Your task to perform on an android device: uninstall "Google Play services" Image 0: 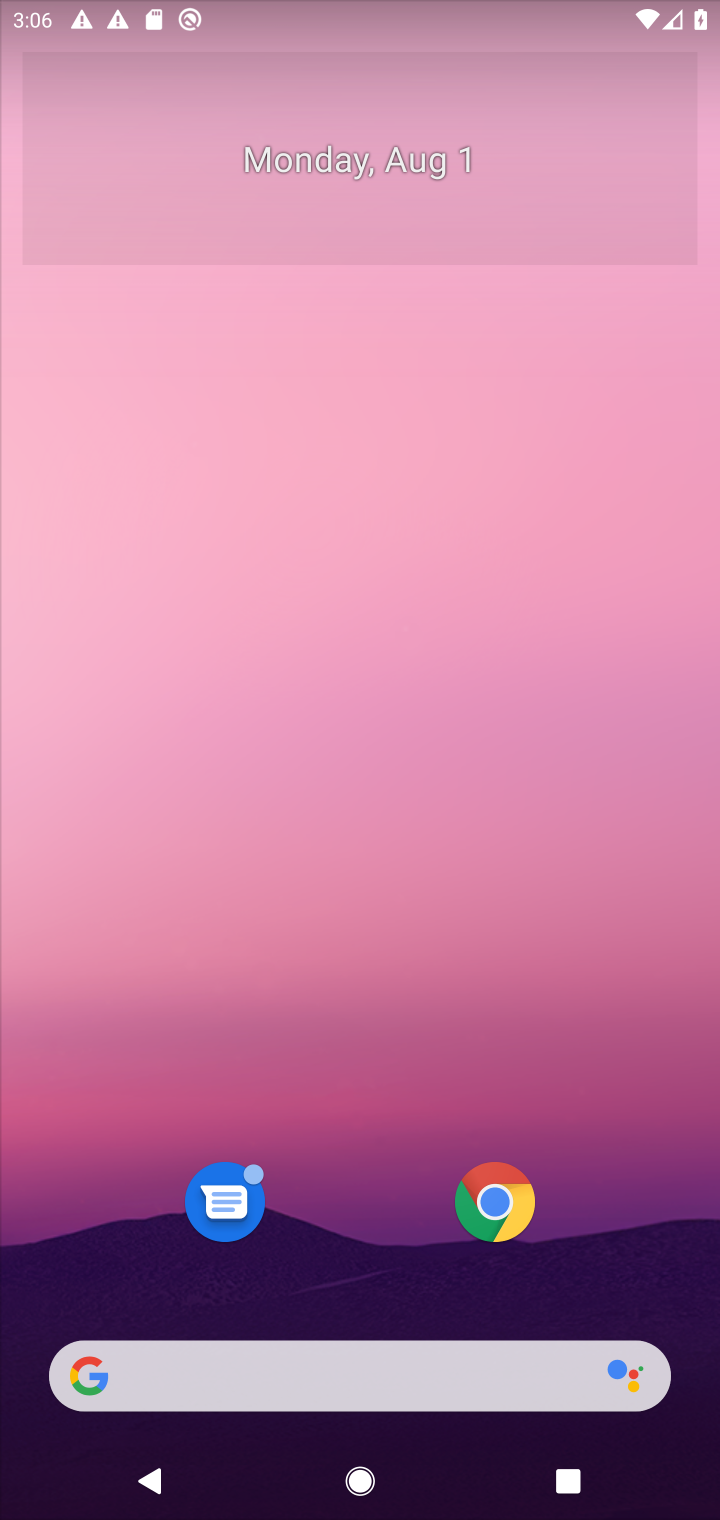
Step 0: drag from (378, 854) to (464, 101)
Your task to perform on an android device: uninstall "Google Play services" Image 1: 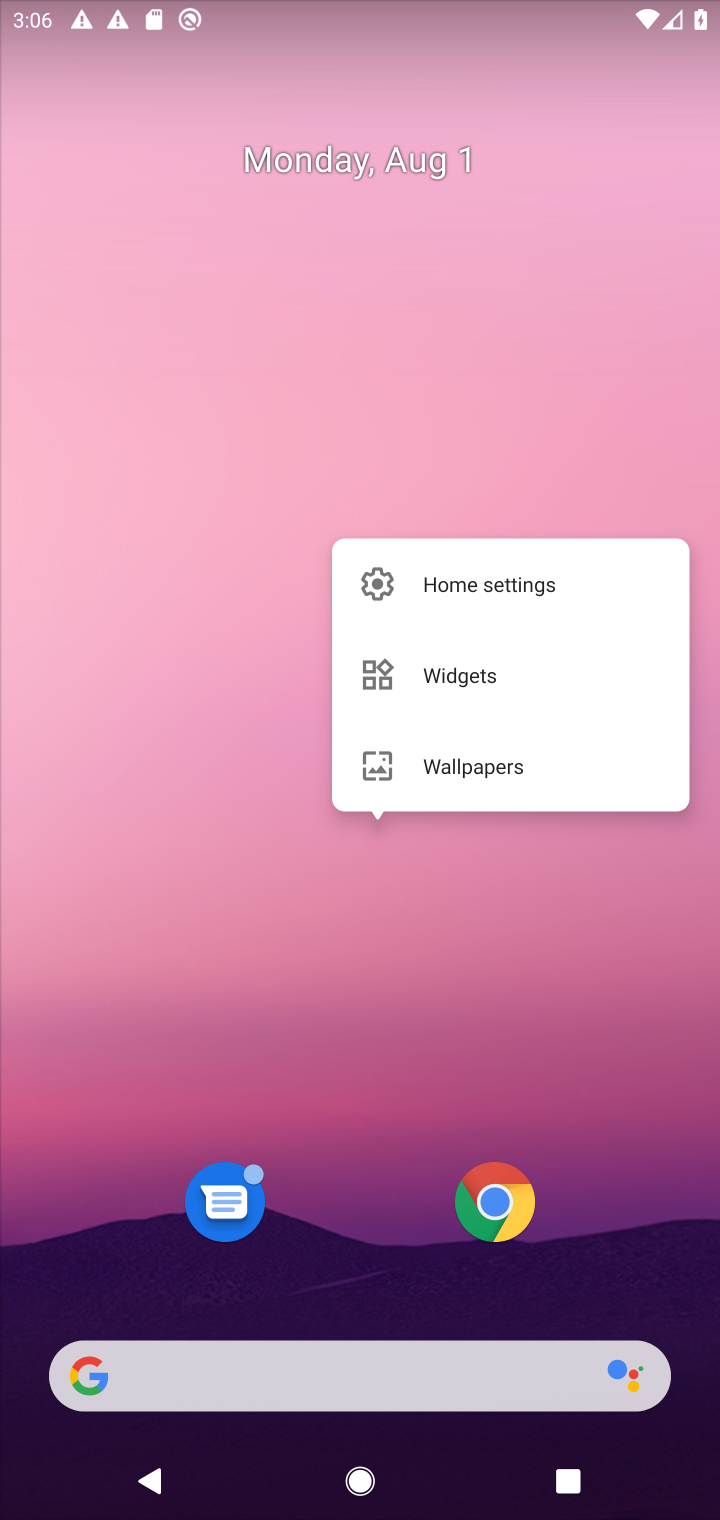
Step 1: click (441, 1055)
Your task to perform on an android device: uninstall "Google Play services" Image 2: 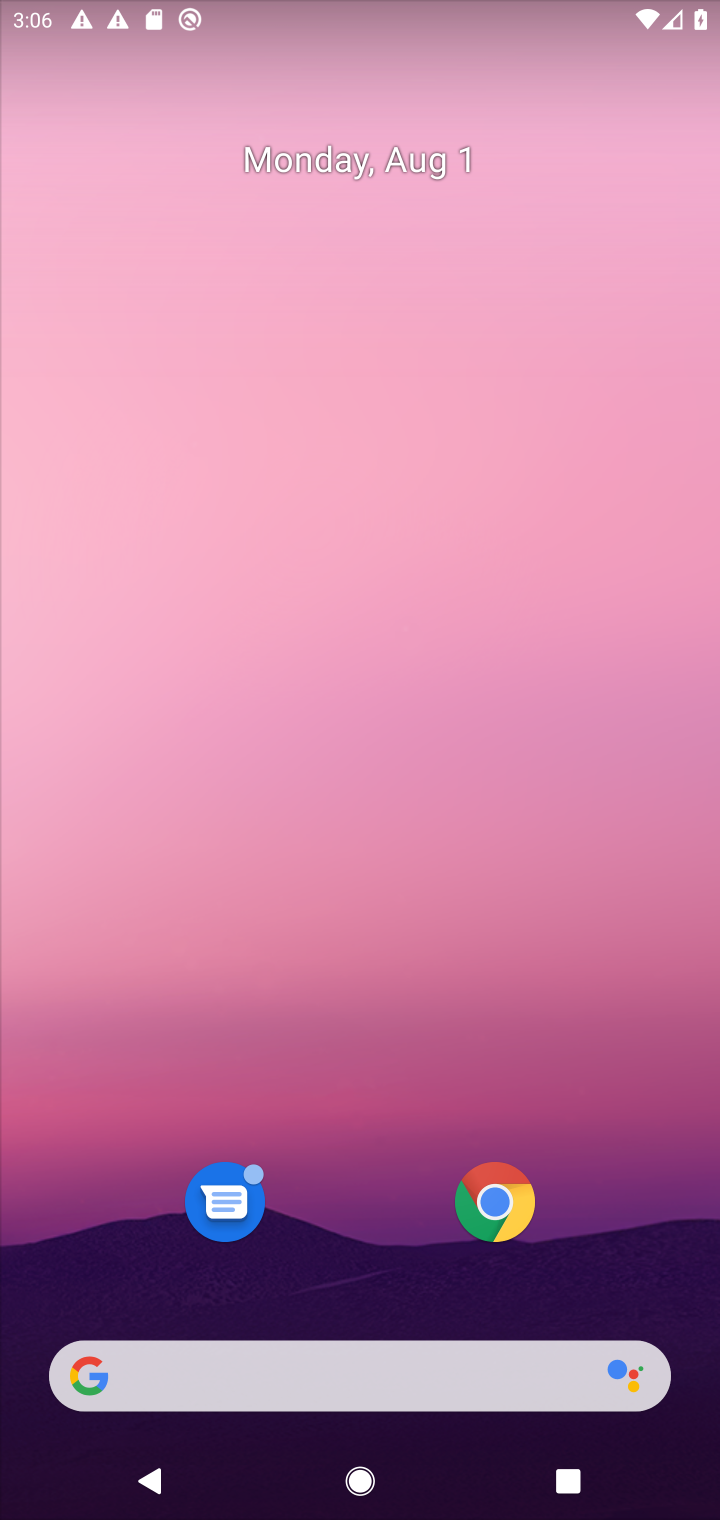
Step 2: drag from (360, 1052) to (396, 31)
Your task to perform on an android device: uninstall "Google Play services" Image 3: 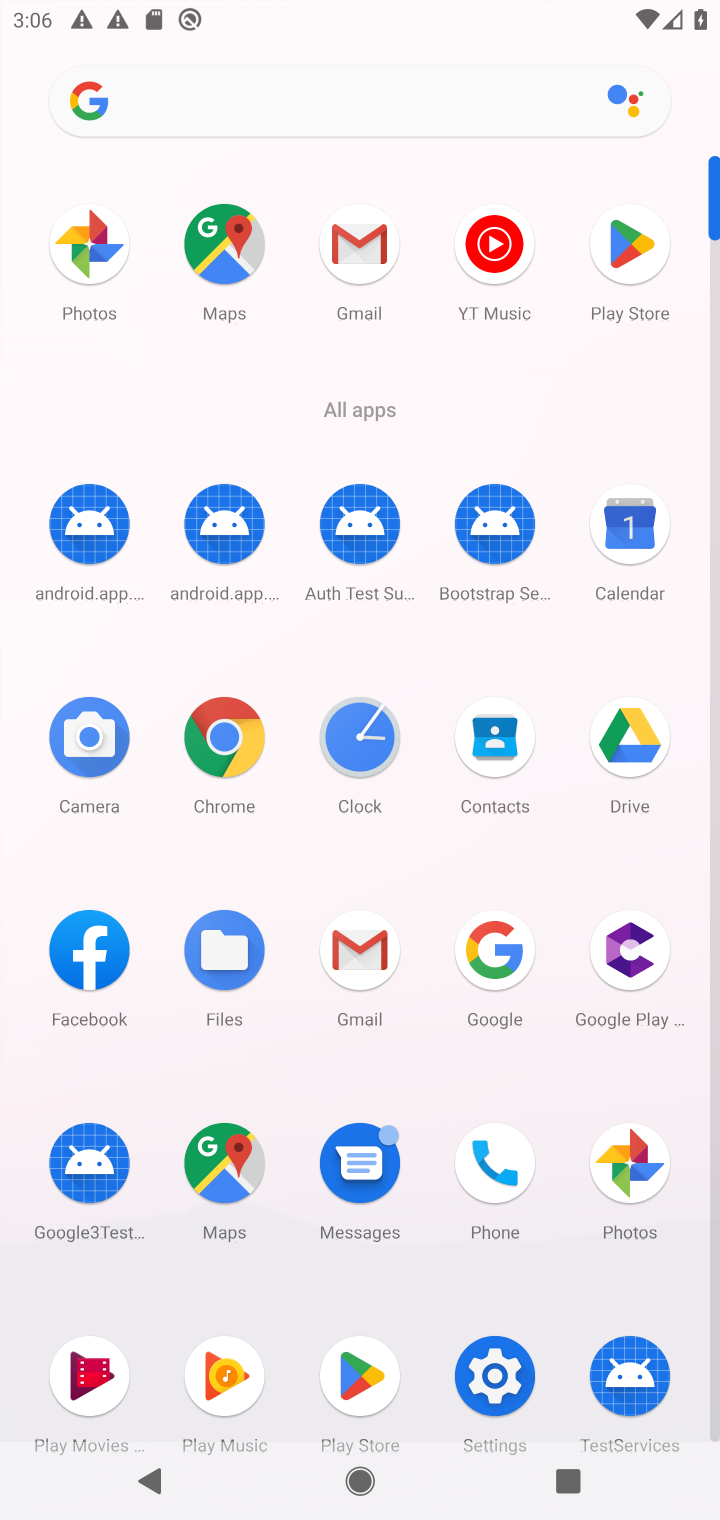
Step 3: click (621, 226)
Your task to perform on an android device: uninstall "Google Play services" Image 4: 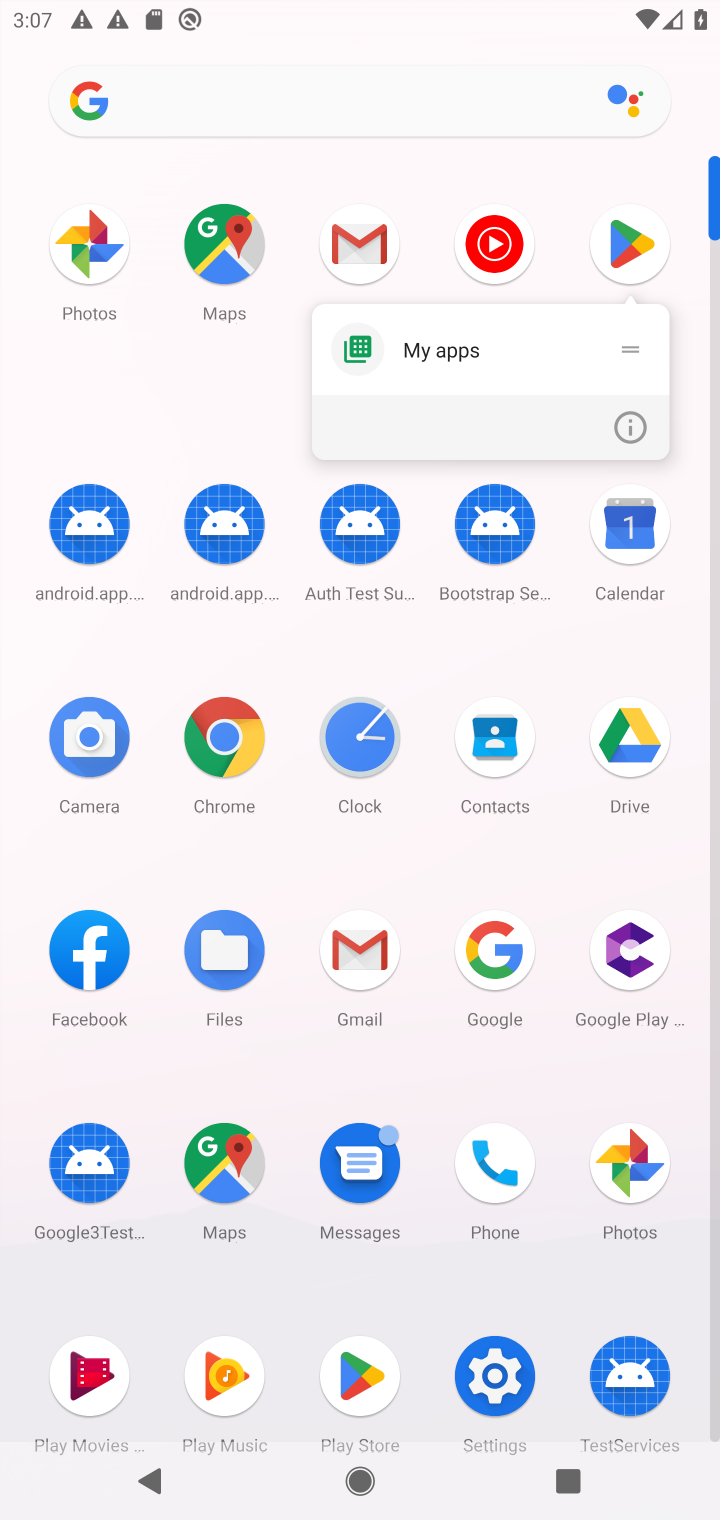
Step 4: click (640, 254)
Your task to perform on an android device: uninstall "Google Play services" Image 5: 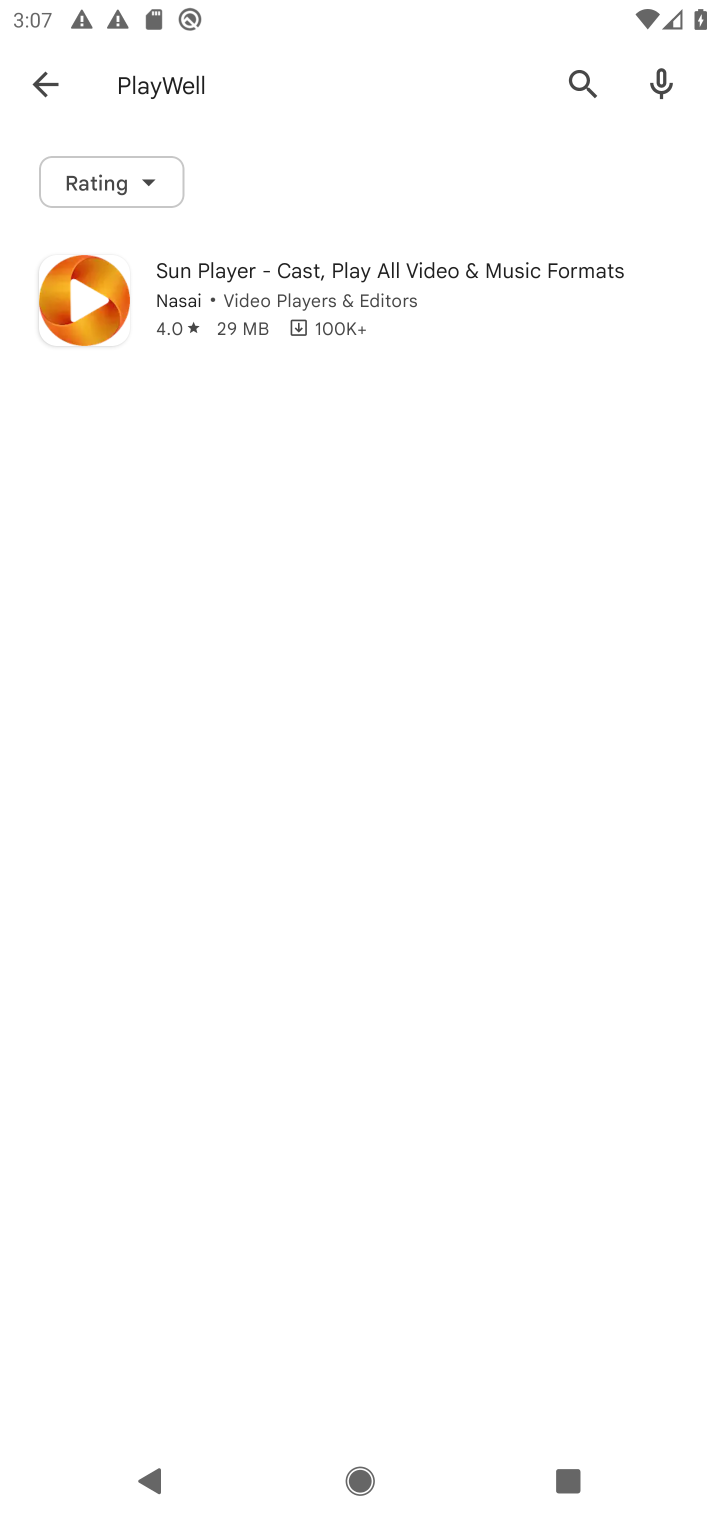
Step 5: click (52, 93)
Your task to perform on an android device: uninstall "Google Play services" Image 6: 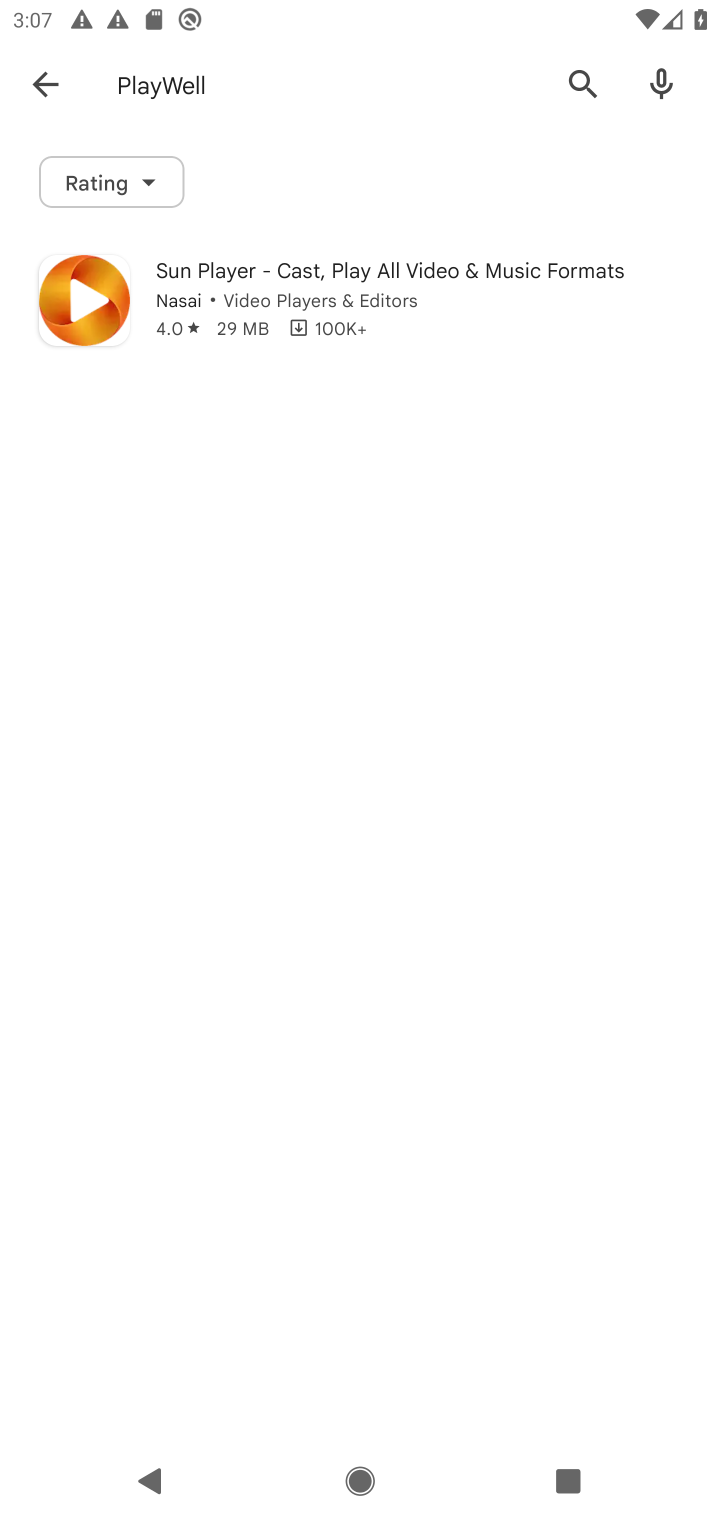
Step 6: press back button
Your task to perform on an android device: uninstall "Google Play services" Image 7: 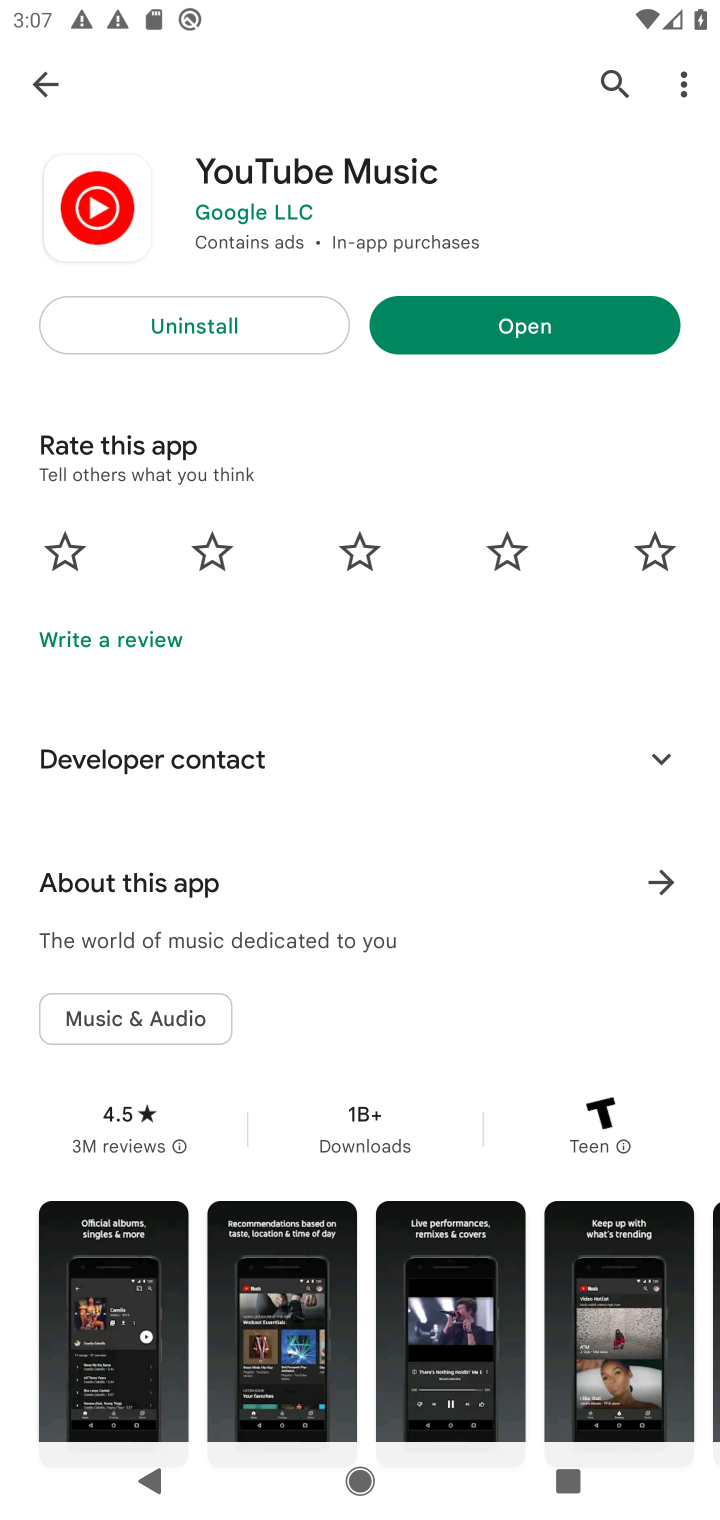
Step 7: click (34, 76)
Your task to perform on an android device: uninstall "Google Play services" Image 8: 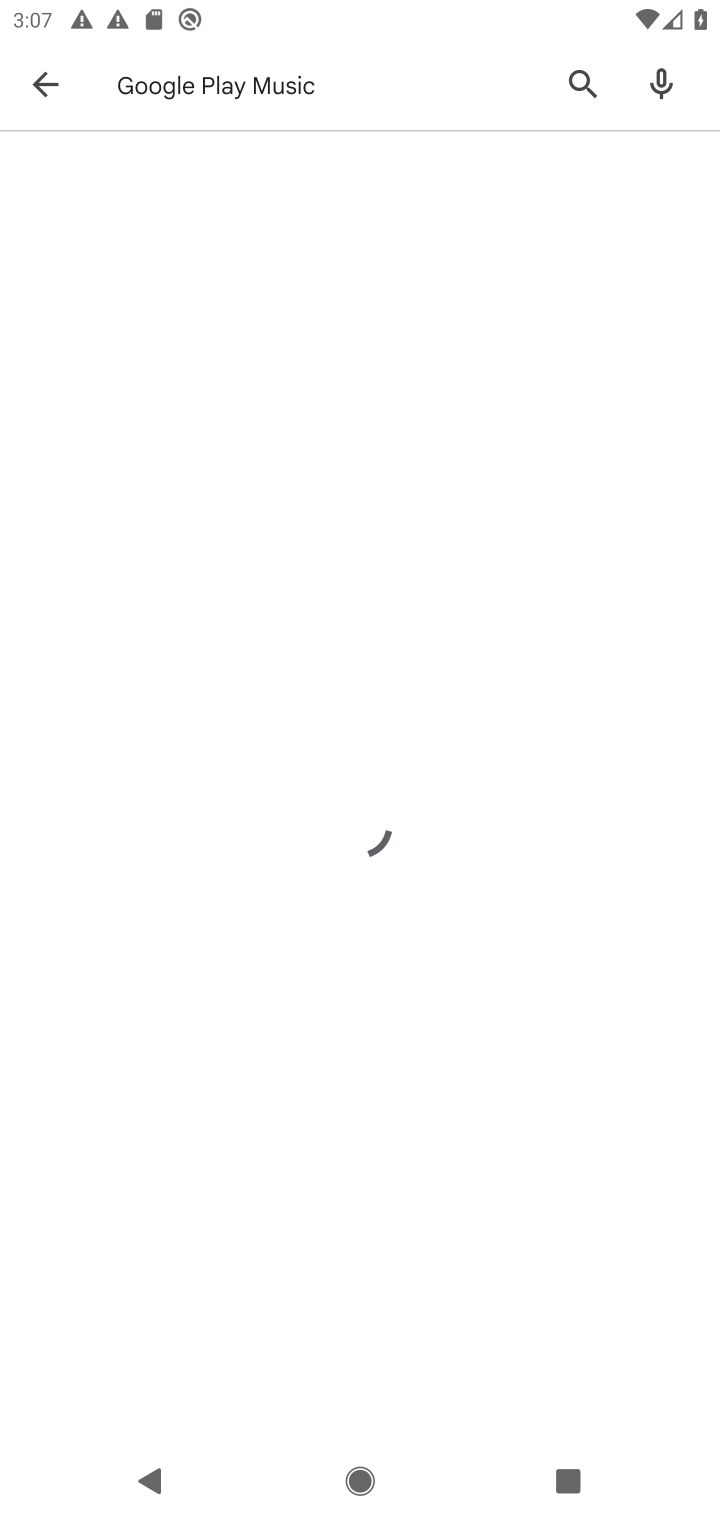
Step 8: click (499, 77)
Your task to perform on an android device: uninstall "Google Play services" Image 9: 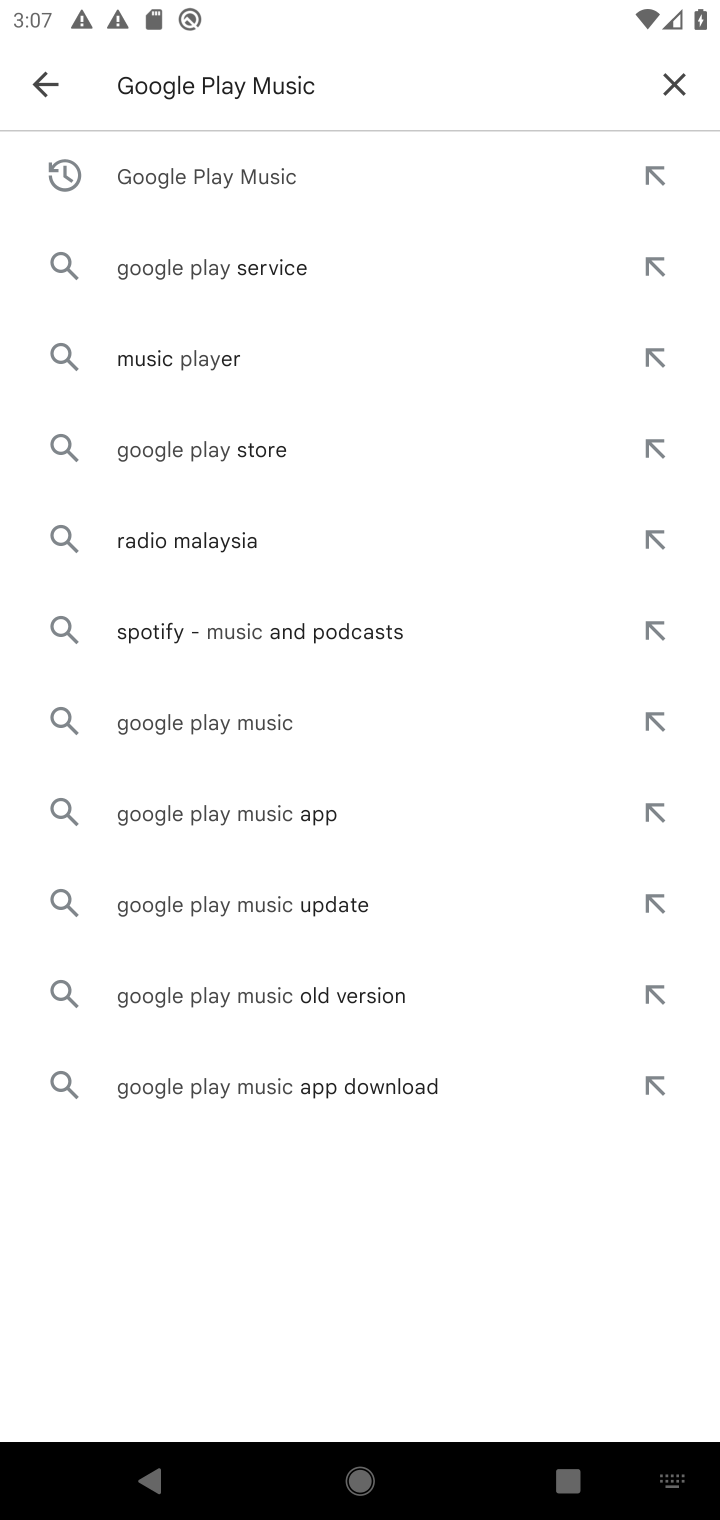
Step 9: press enter
Your task to perform on an android device: uninstall "Google Play services" Image 10: 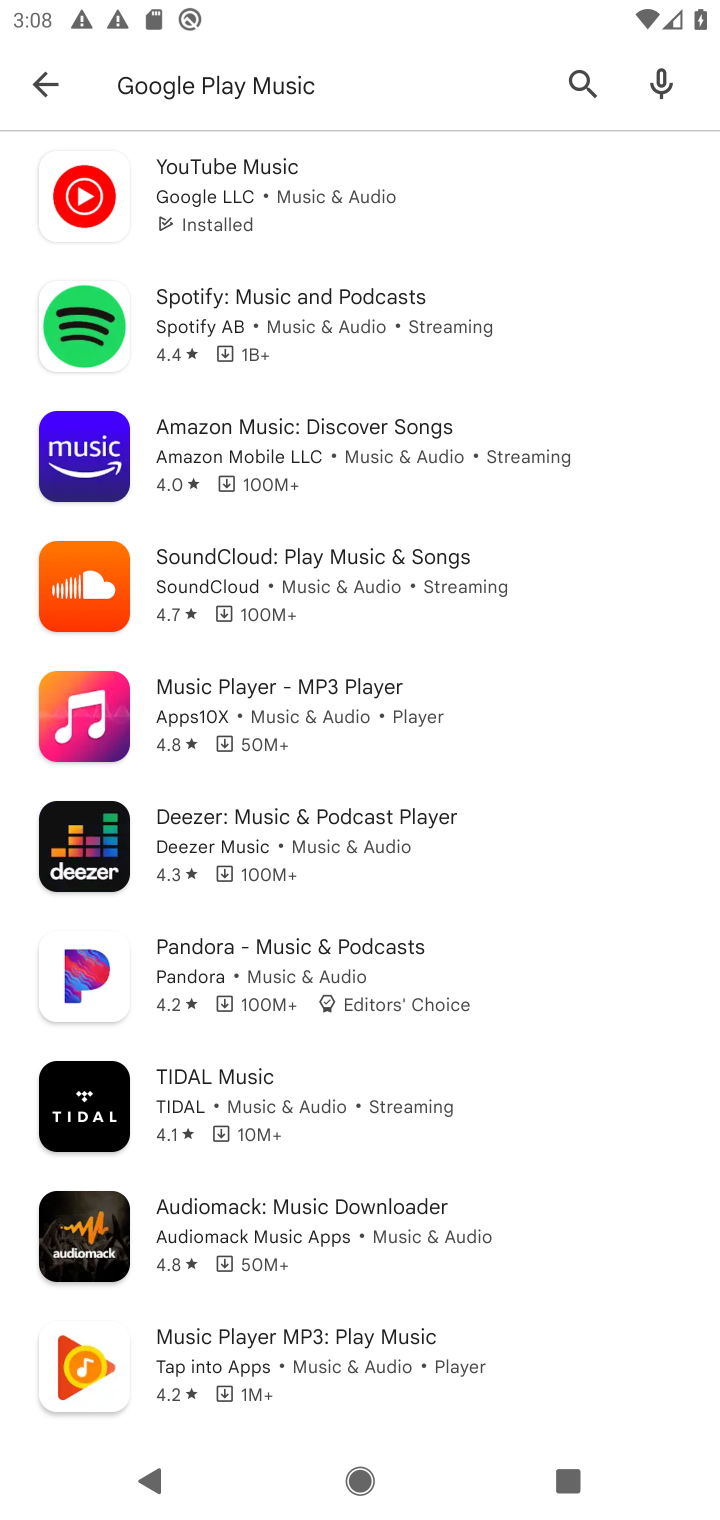
Step 10: click (416, 73)
Your task to perform on an android device: uninstall "Google Play services" Image 11: 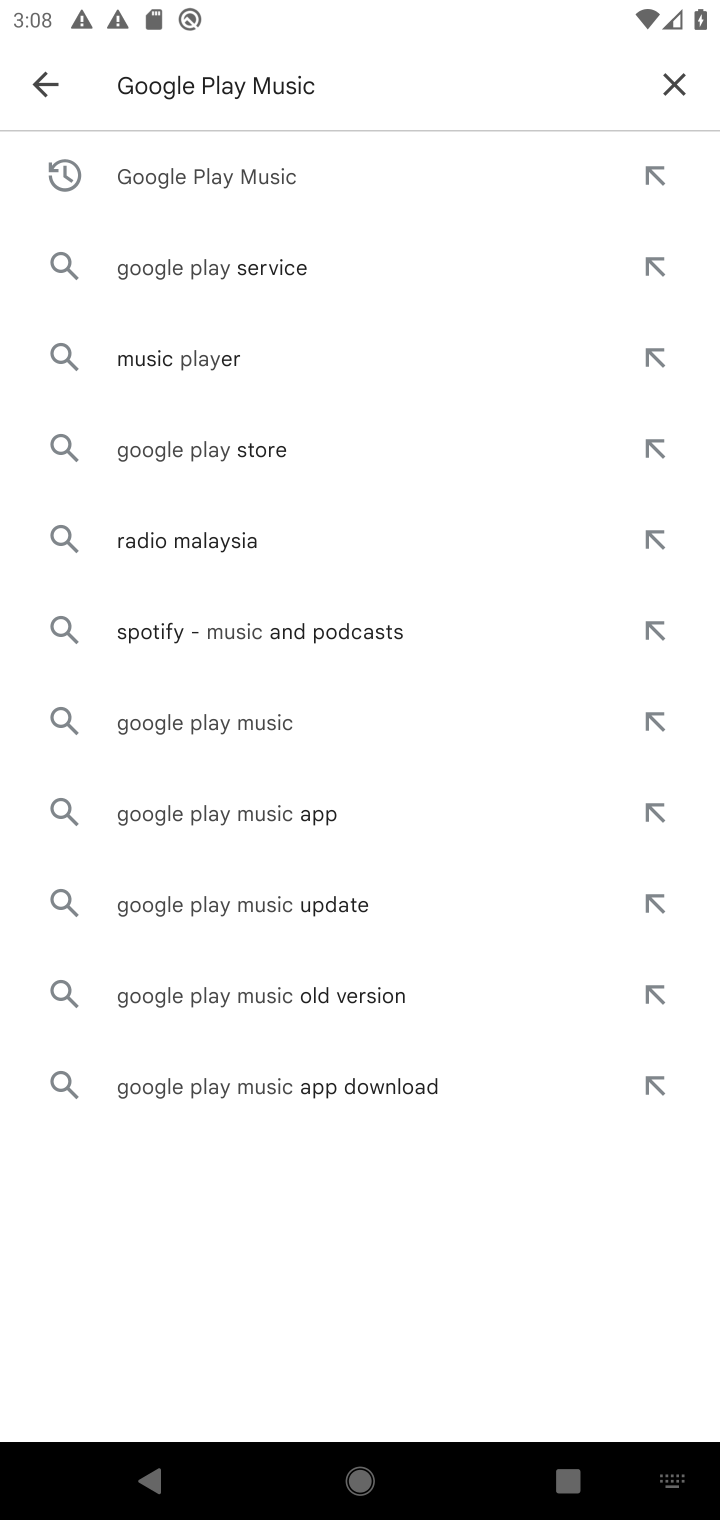
Step 11: click (264, 280)
Your task to perform on an android device: uninstall "Google Play services" Image 12: 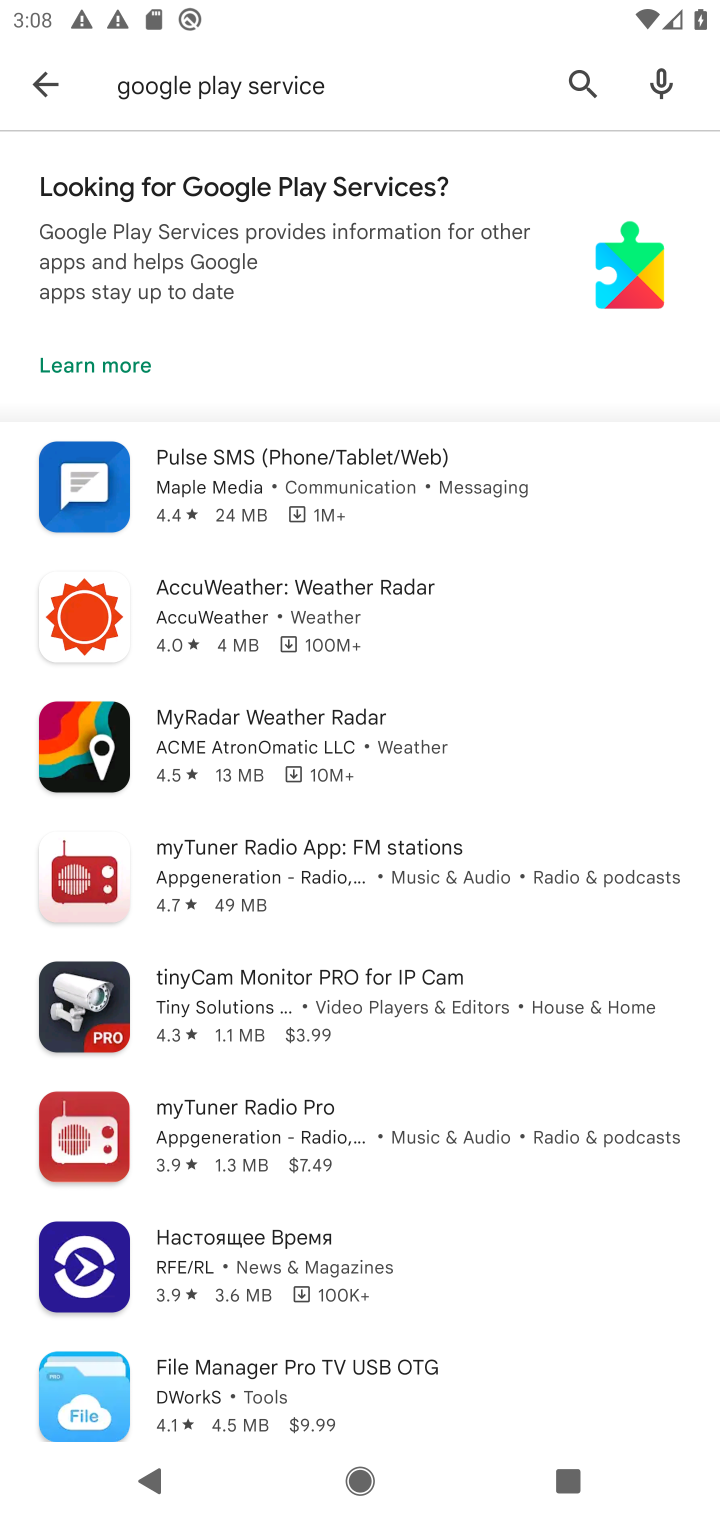
Step 12: press home button
Your task to perform on an android device: uninstall "Google Play services" Image 13: 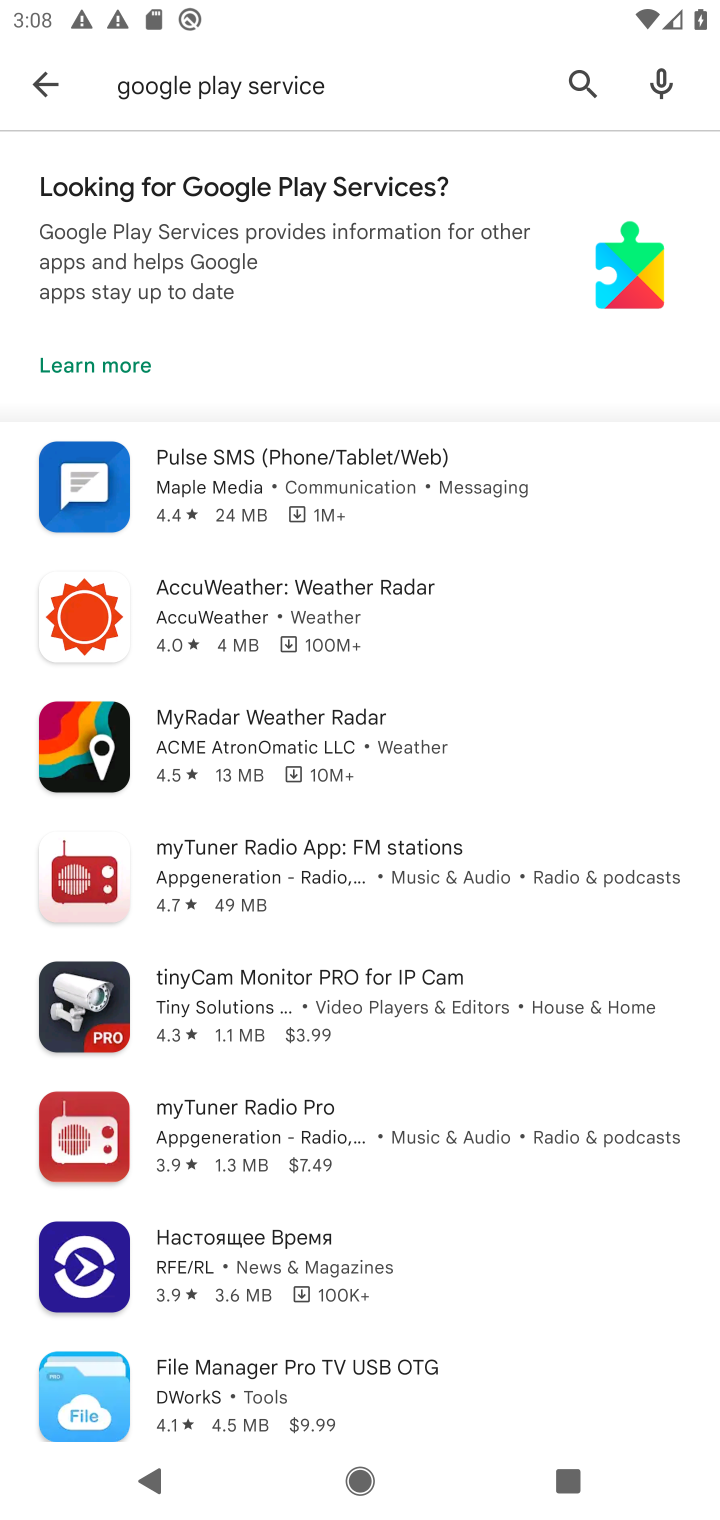
Step 13: press home button
Your task to perform on an android device: uninstall "Google Play services" Image 14: 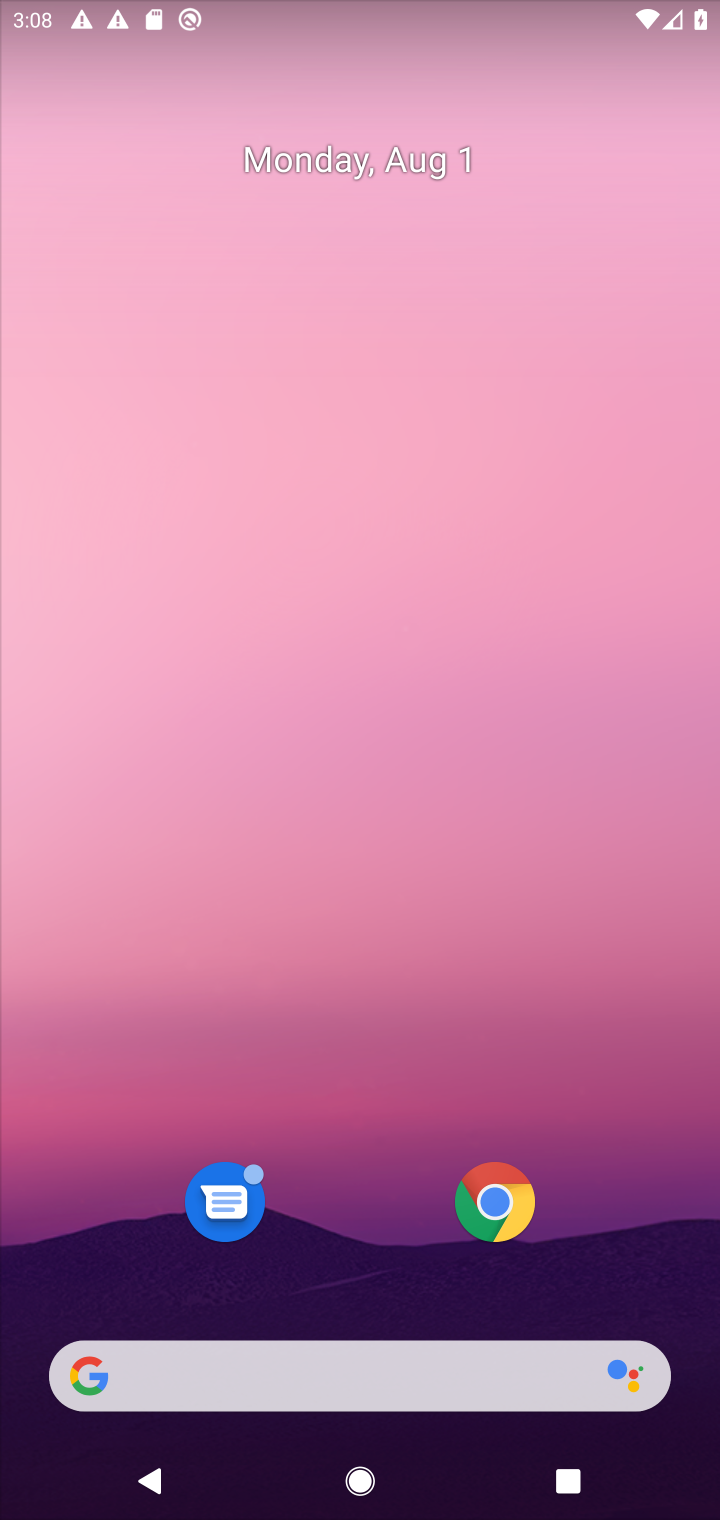
Step 14: drag from (331, 1261) to (380, 294)
Your task to perform on an android device: uninstall "Google Play services" Image 15: 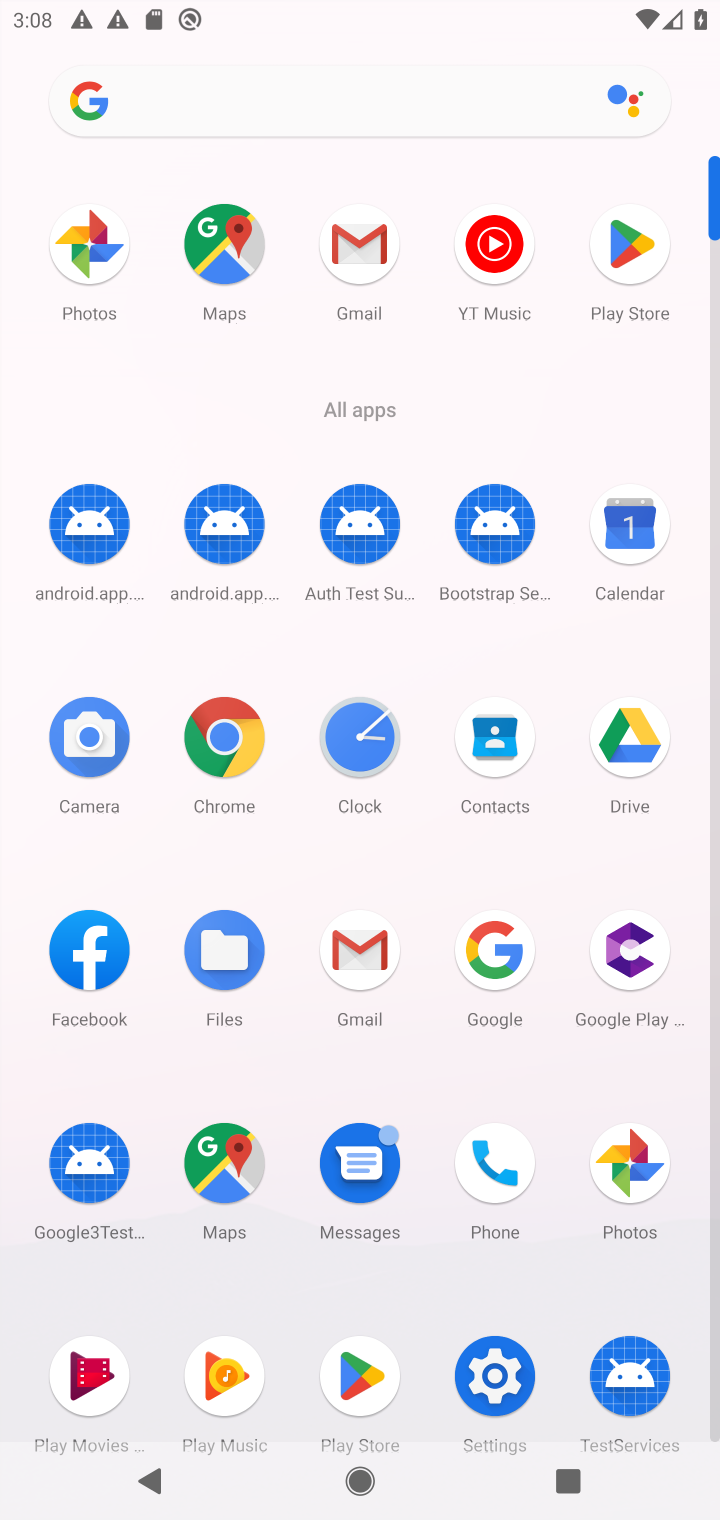
Step 15: click (482, 1366)
Your task to perform on an android device: uninstall "Google Play services" Image 16: 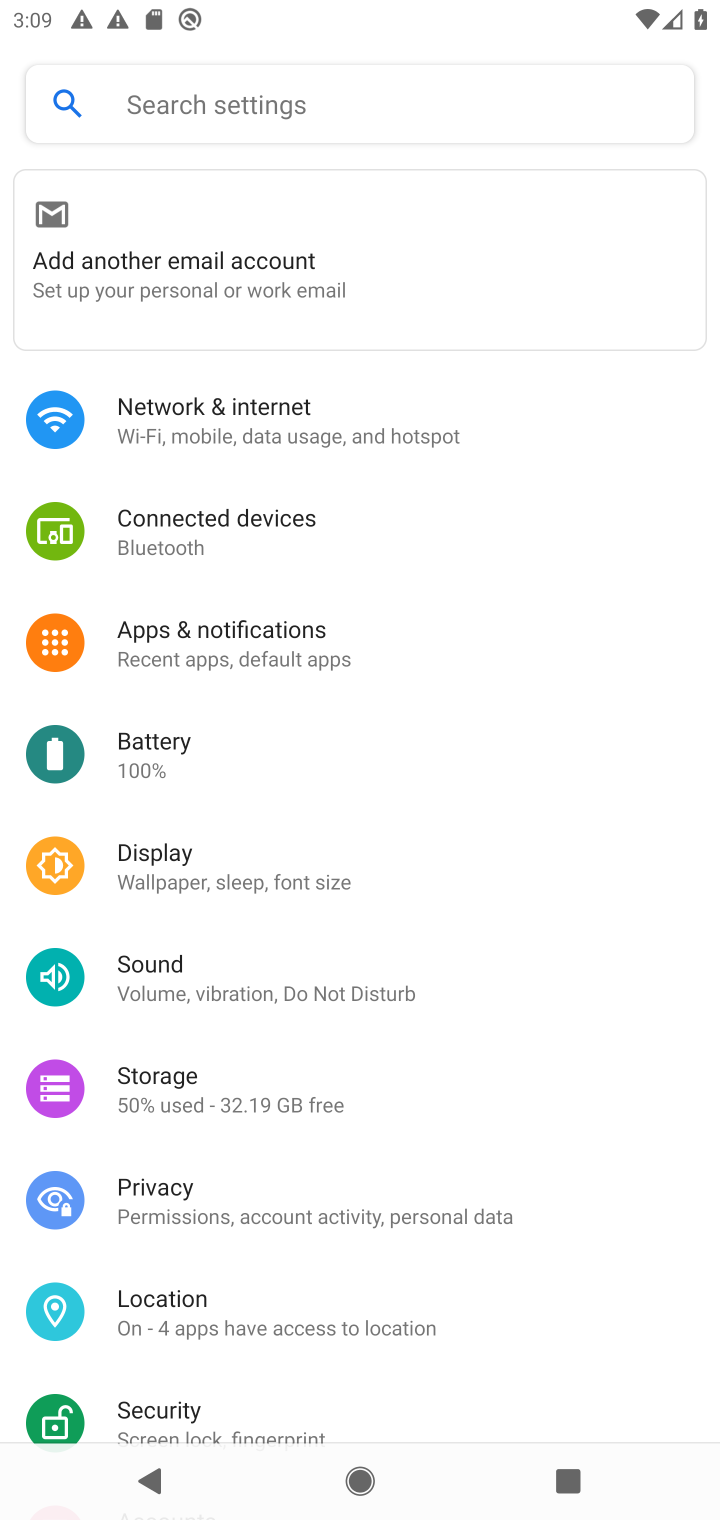
Step 16: click (202, 629)
Your task to perform on an android device: uninstall "Google Play services" Image 17: 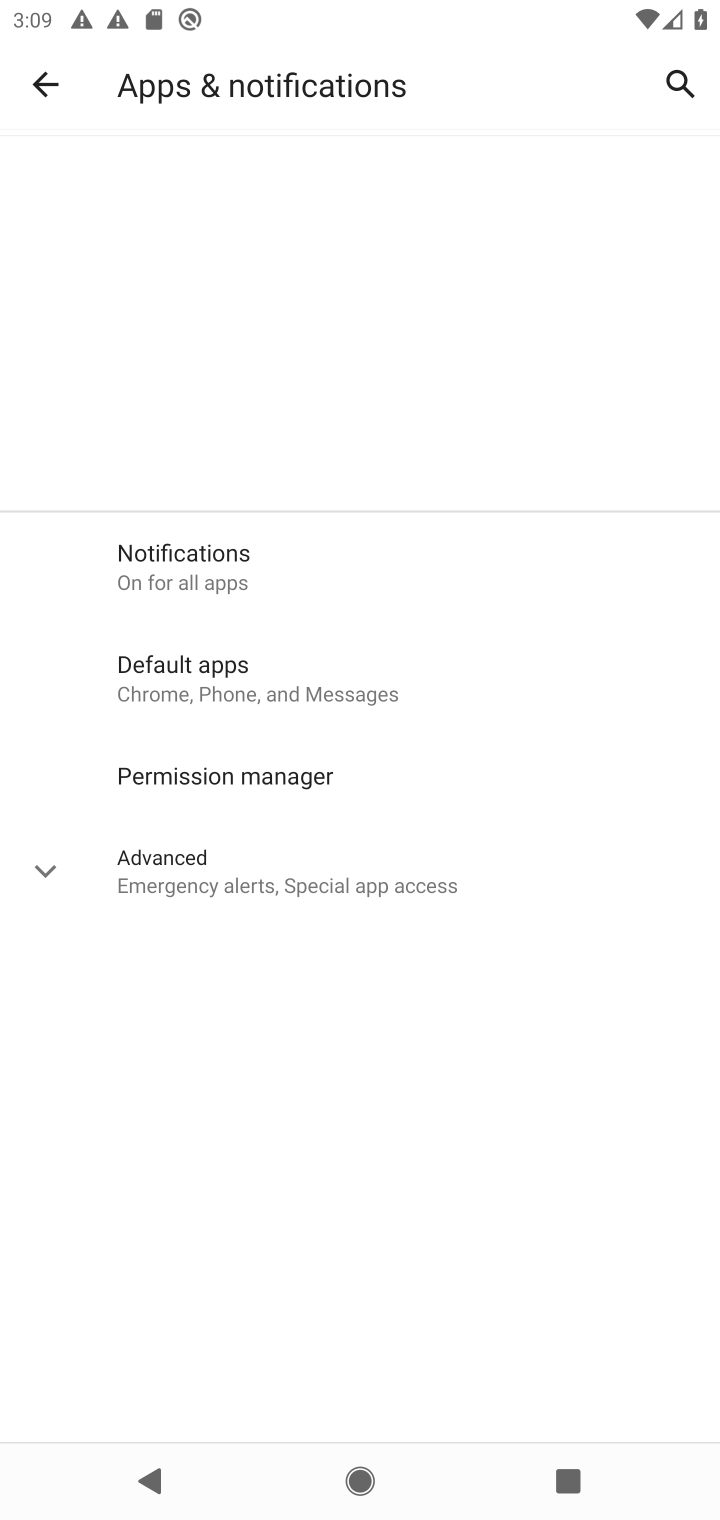
Step 17: click (193, 543)
Your task to perform on an android device: uninstall "Google Play services" Image 18: 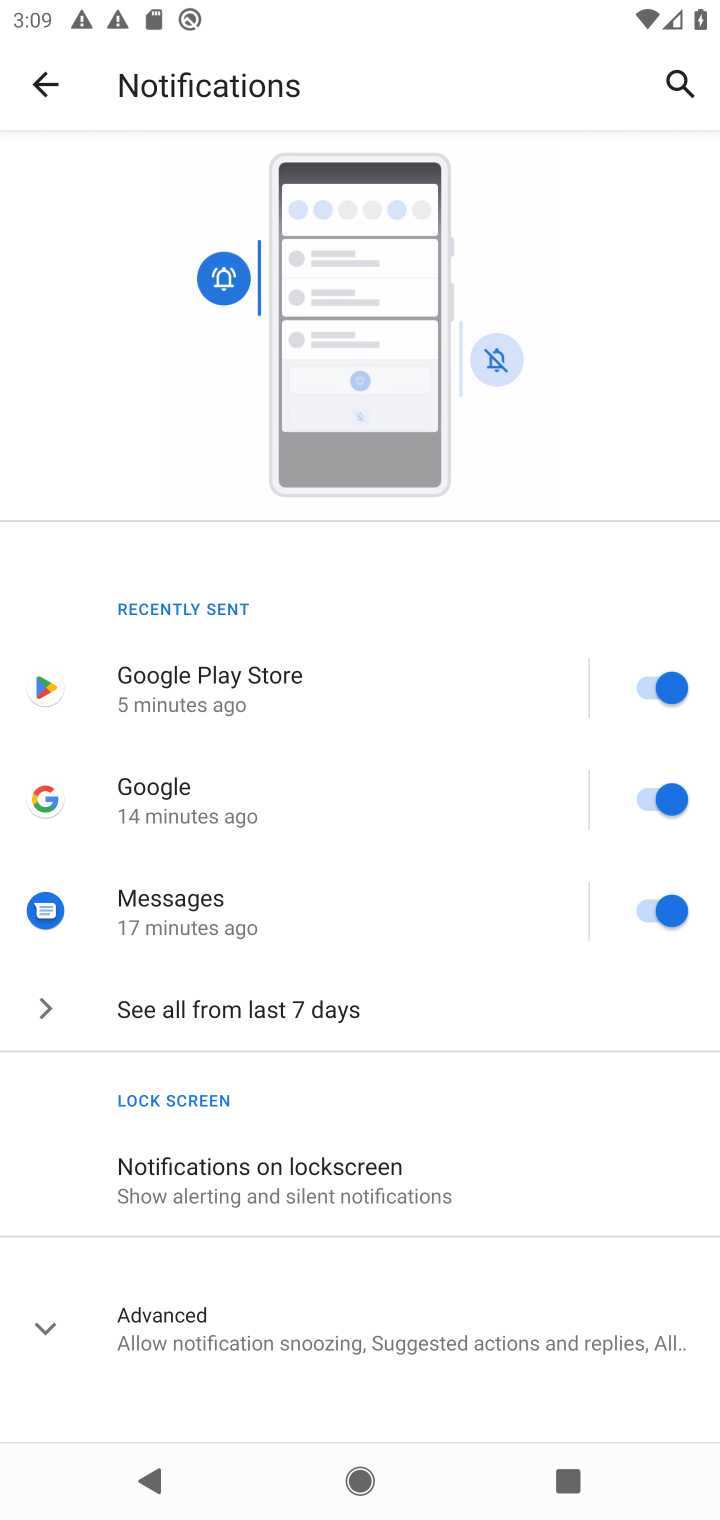
Step 18: click (62, 90)
Your task to perform on an android device: uninstall "Google Play services" Image 19: 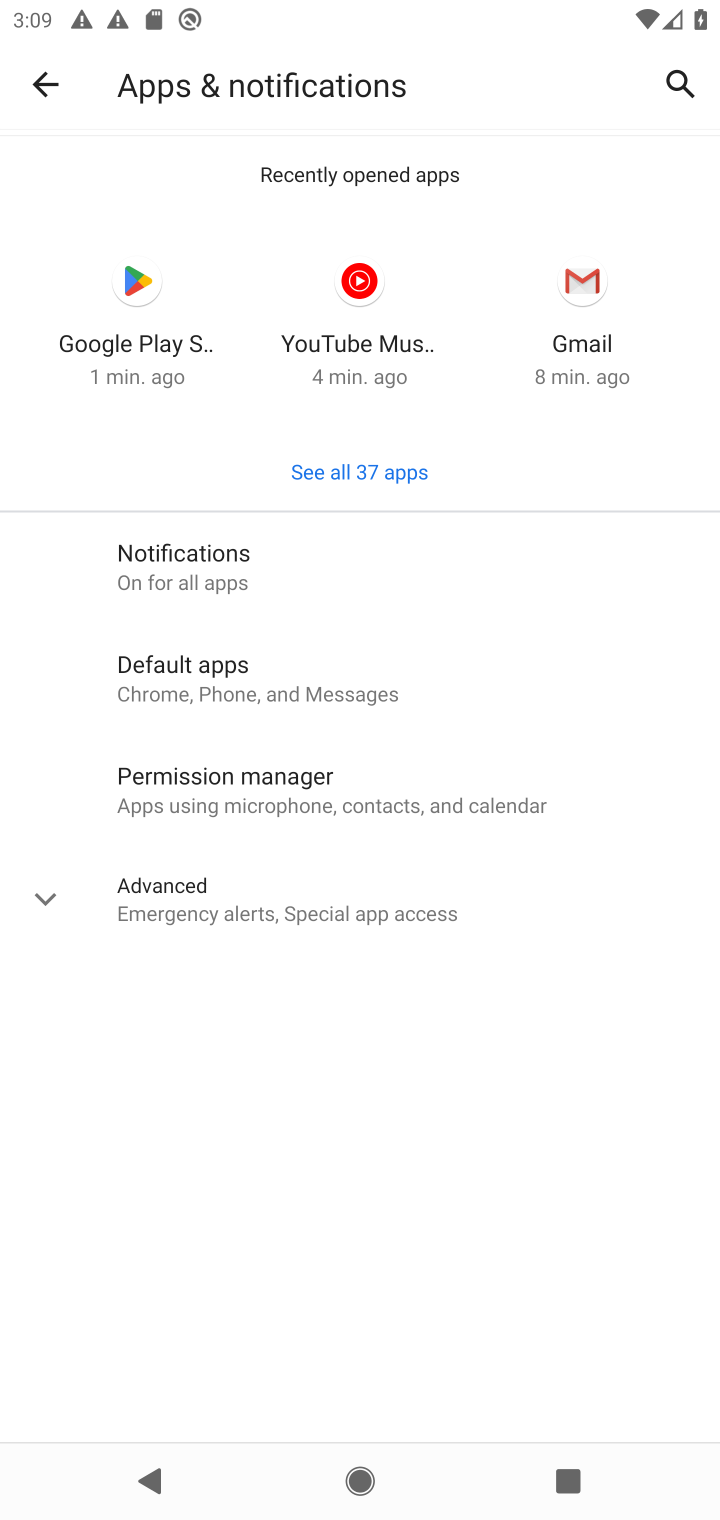
Step 19: click (343, 484)
Your task to perform on an android device: uninstall "Google Play services" Image 20: 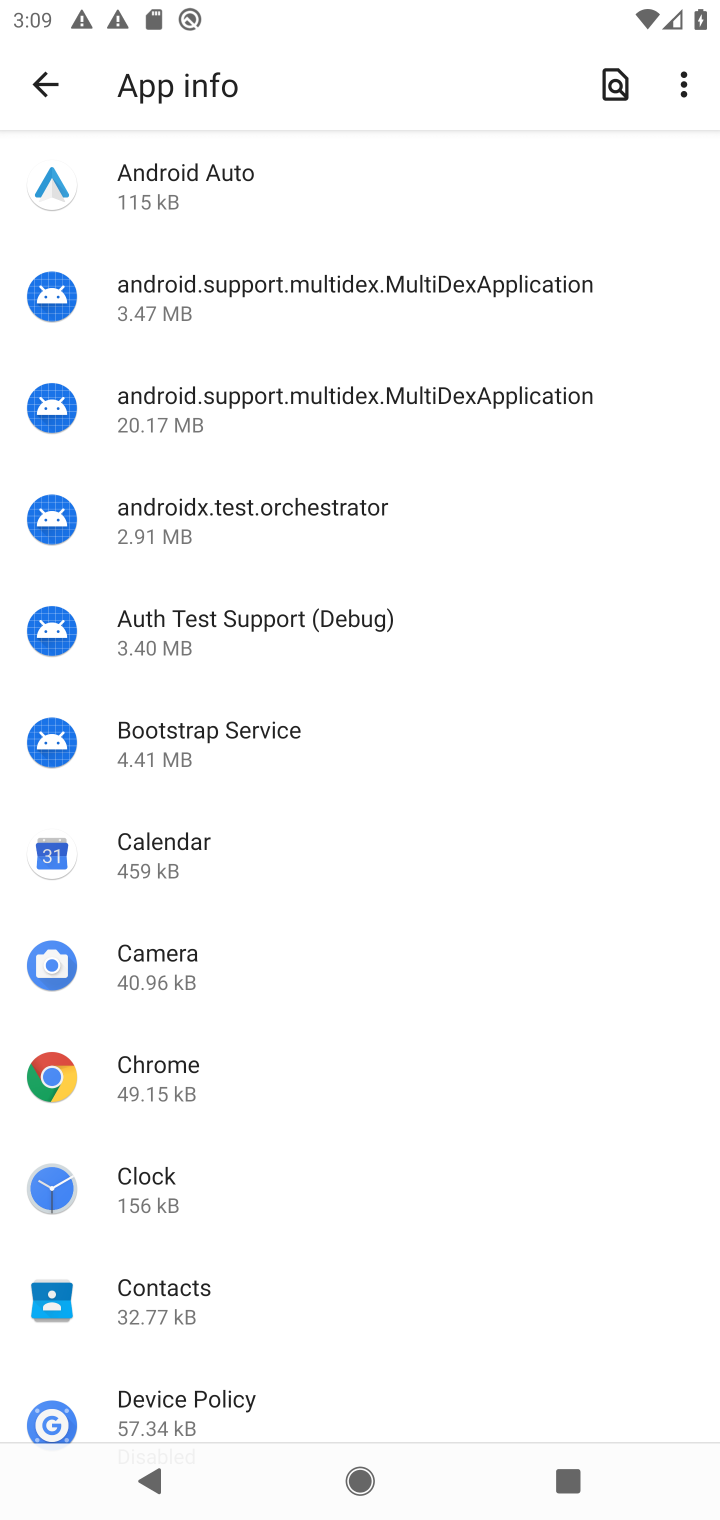
Step 20: drag from (338, 1119) to (437, 60)
Your task to perform on an android device: uninstall "Google Play services" Image 21: 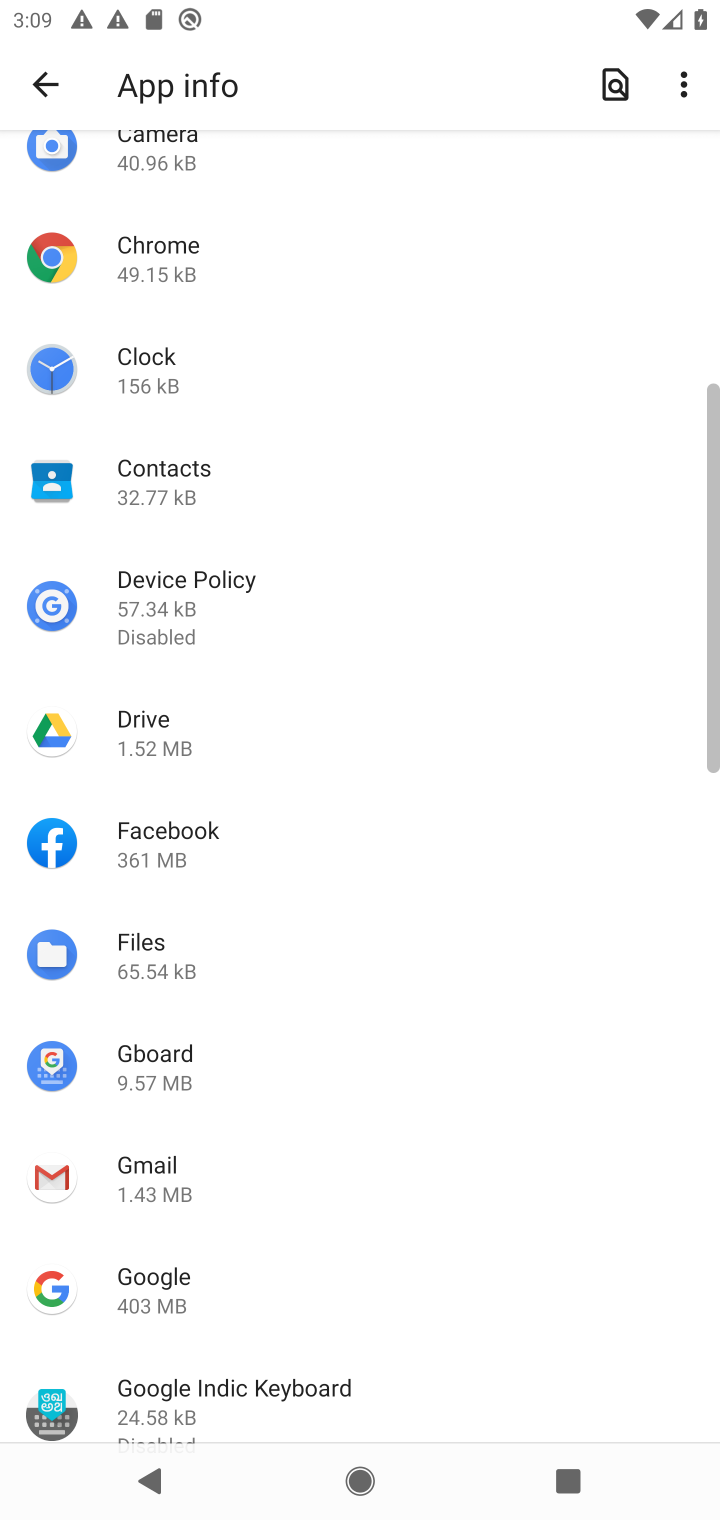
Step 21: drag from (438, 1331) to (546, 237)
Your task to perform on an android device: uninstall "Google Play services" Image 22: 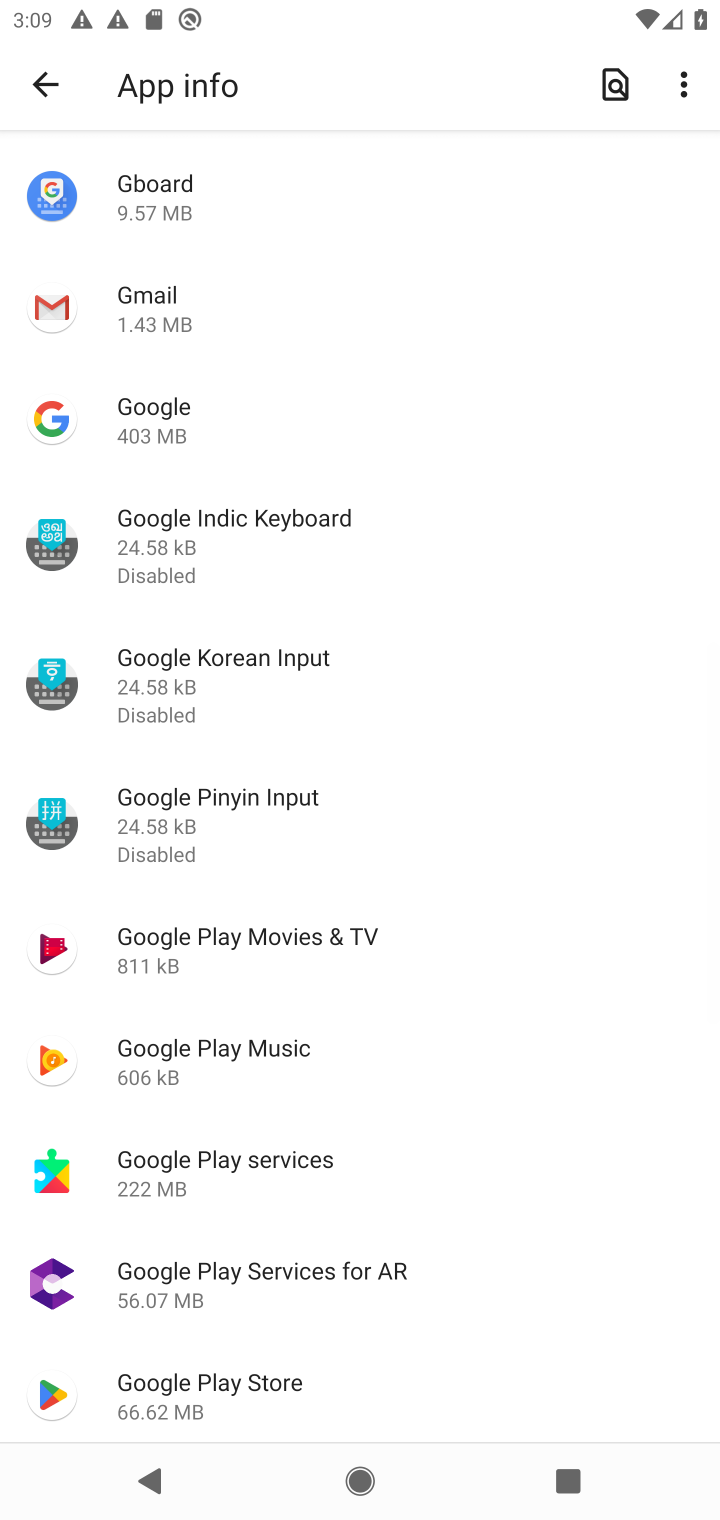
Step 22: click (306, 1181)
Your task to perform on an android device: uninstall "Google Play services" Image 23: 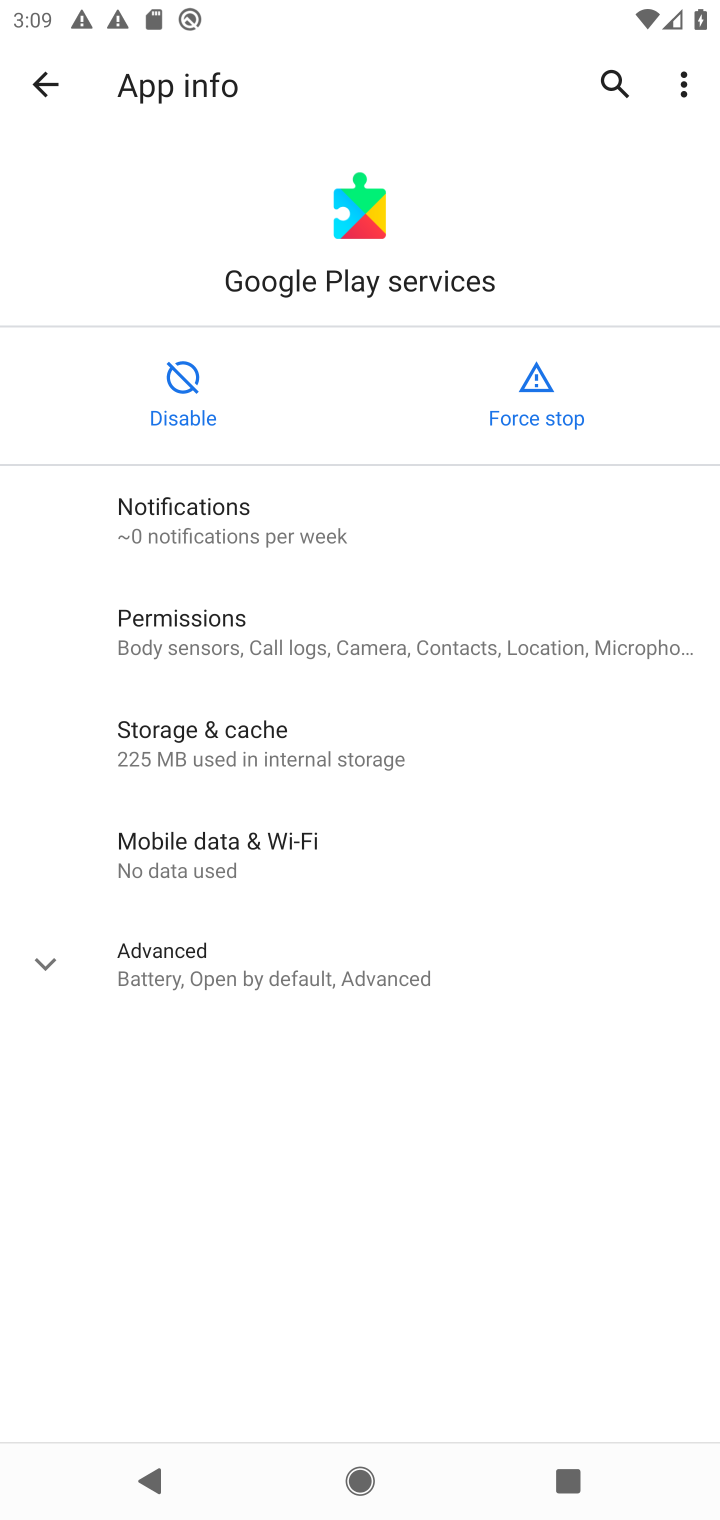
Step 23: task complete